Your task to perform on an android device: turn on data saver in the chrome app Image 0: 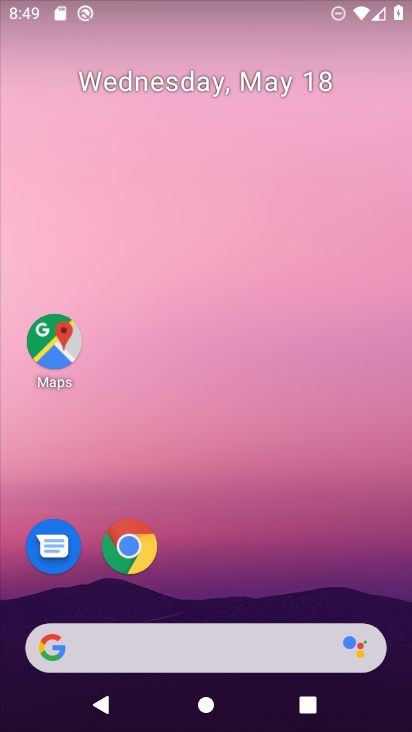
Step 0: drag from (246, 636) to (376, 191)
Your task to perform on an android device: turn on data saver in the chrome app Image 1: 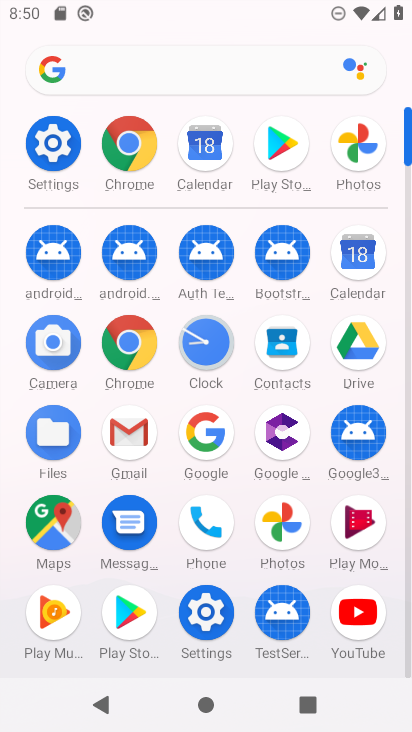
Step 1: click (153, 181)
Your task to perform on an android device: turn on data saver in the chrome app Image 2: 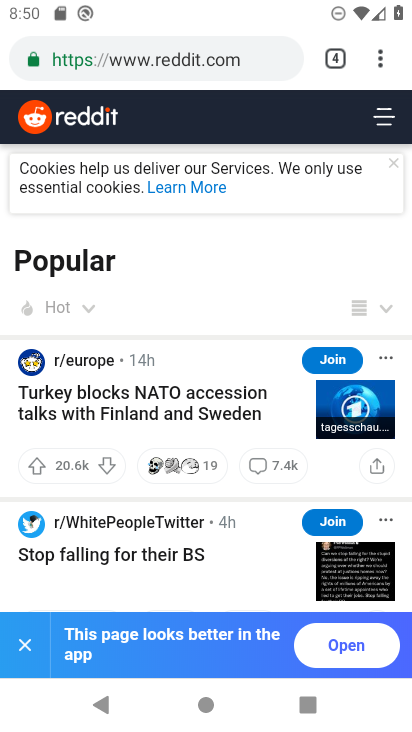
Step 2: click (379, 58)
Your task to perform on an android device: turn on data saver in the chrome app Image 3: 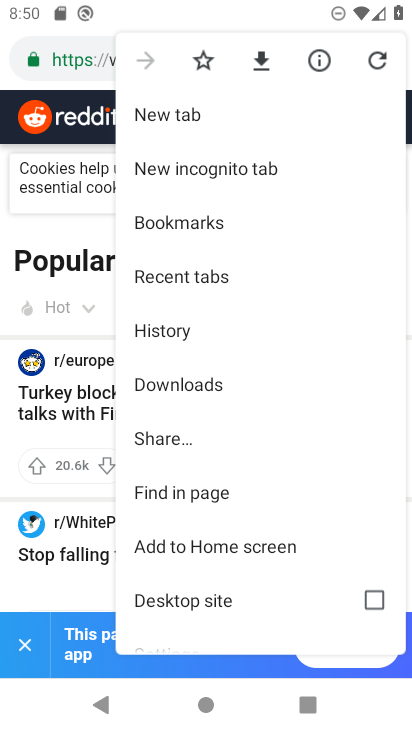
Step 3: drag from (175, 541) to (267, 347)
Your task to perform on an android device: turn on data saver in the chrome app Image 4: 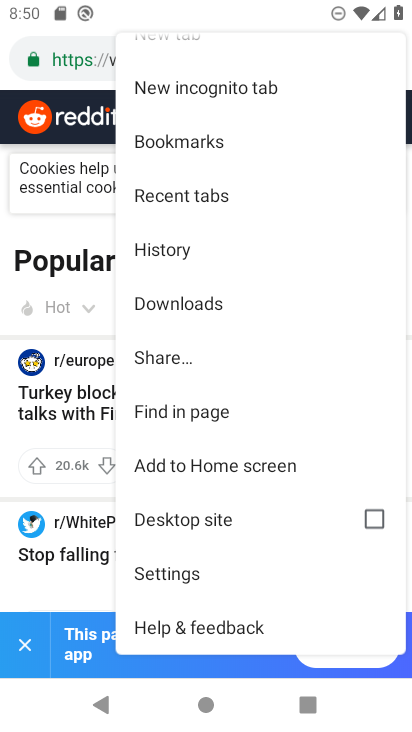
Step 4: click (151, 575)
Your task to perform on an android device: turn on data saver in the chrome app Image 5: 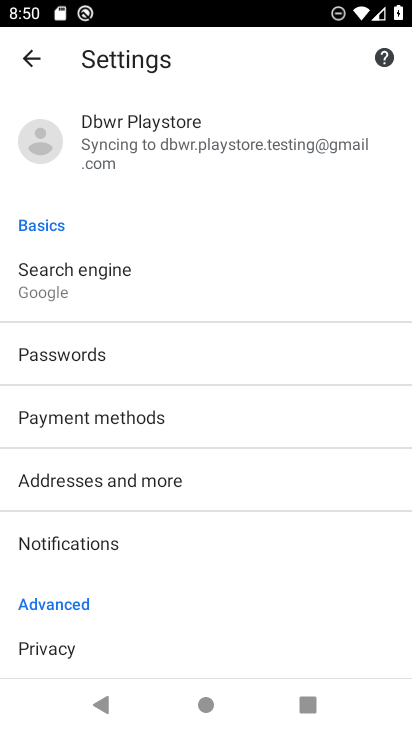
Step 5: drag from (127, 537) to (204, 381)
Your task to perform on an android device: turn on data saver in the chrome app Image 6: 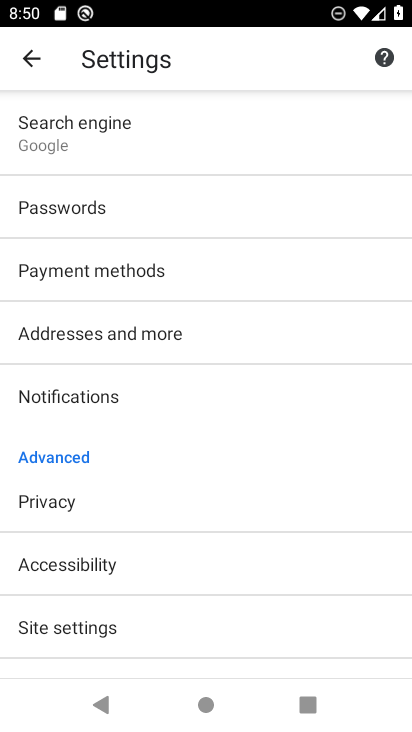
Step 6: drag from (72, 585) to (125, 500)
Your task to perform on an android device: turn on data saver in the chrome app Image 7: 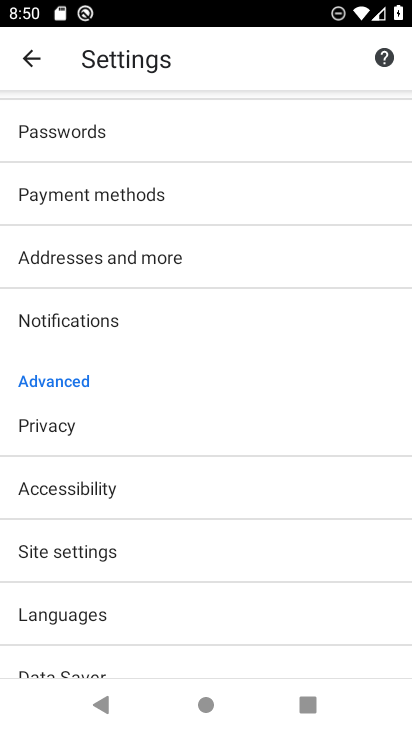
Step 7: drag from (84, 602) to (151, 478)
Your task to perform on an android device: turn on data saver in the chrome app Image 8: 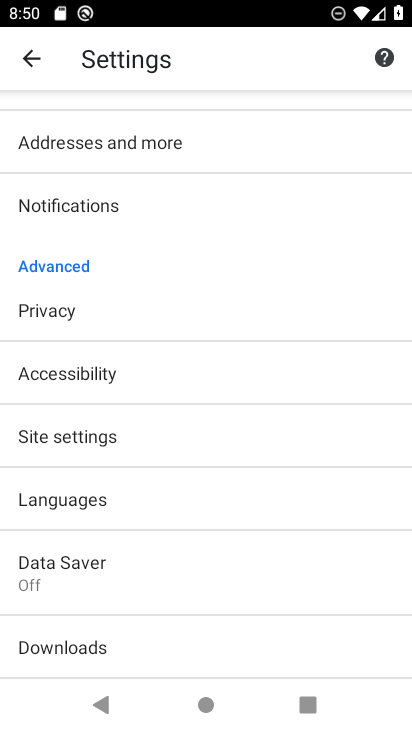
Step 8: click (63, 570)
Your task to perform on an android device: turn on data saver in the chrome app Image 9: 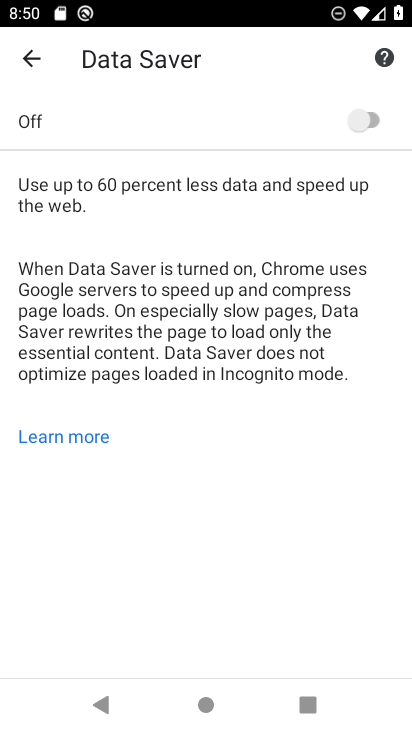
Step 9: click (360, 122)
Your task to perform on an android device: turn on data saver in the chrome app Image 10: 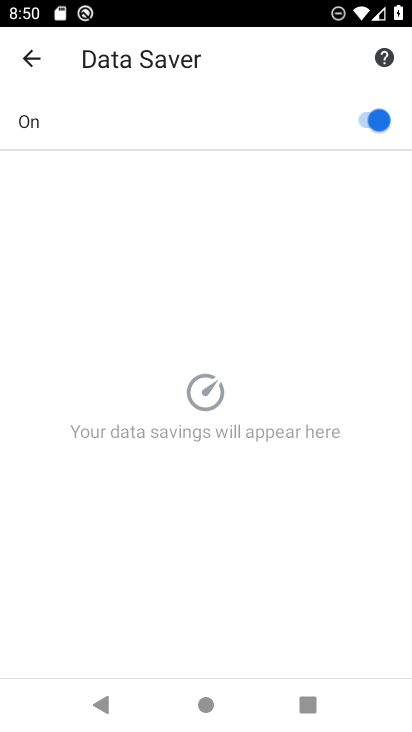
Step 10: task complete